Your task to perform on an android device: turn off notifications in google photos Image 0: 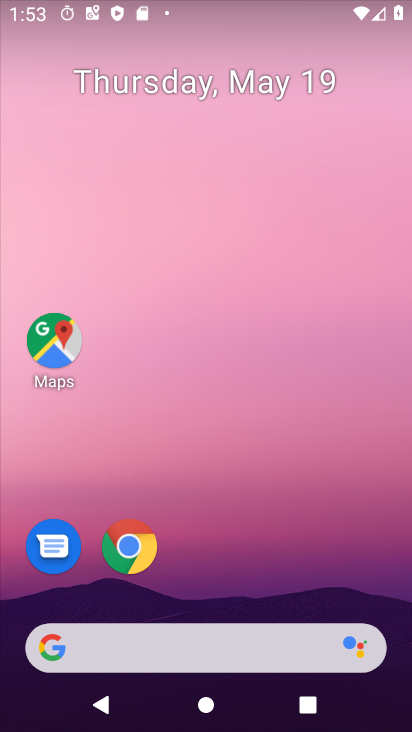
Step 0: drag from (178, 598) to (185, 78)
Your task to perform on an android device: turn off notifications in google photos Image 1: 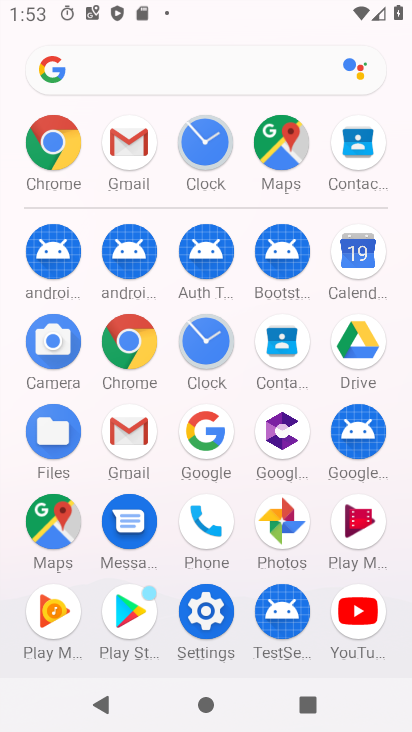
Step 1: click (278, 518)
Your task to perform on an android device: turn off notifications in google photos Image 2: 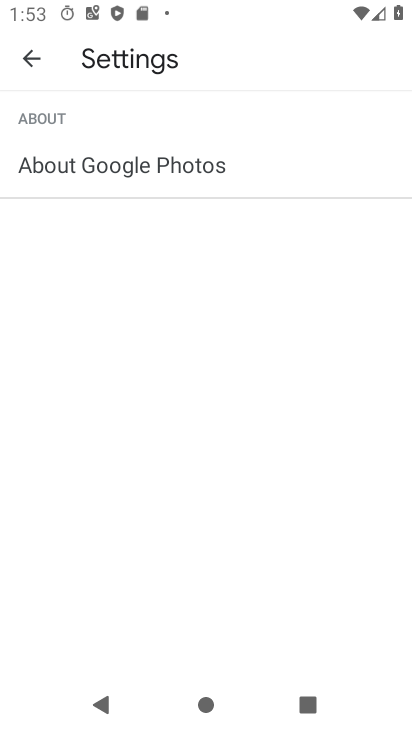
Step 2: click (49, 64)
Your task to perform on an android device: turn off notifications in google photos Image 3: 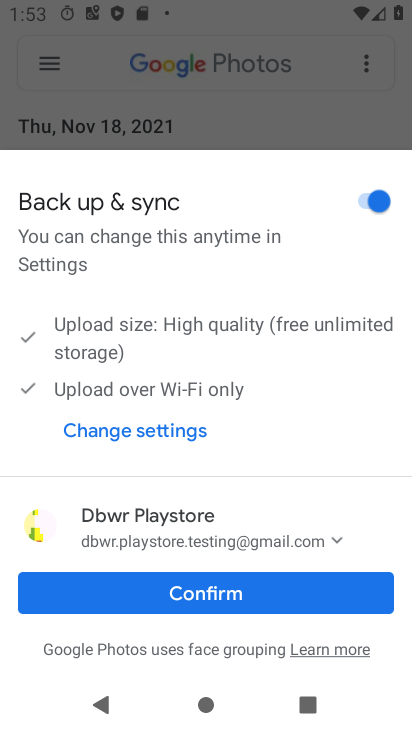
Step 3: click (129, 599)
Your task to perform on an android device: turn off notifications in google photos Image 4: 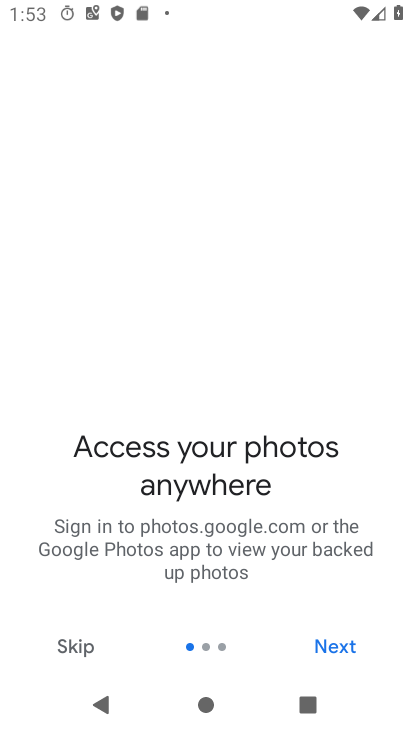
Step 4: click (329, 647)
Your task to perform on an android device: turn off notifications in google photos Image 5: 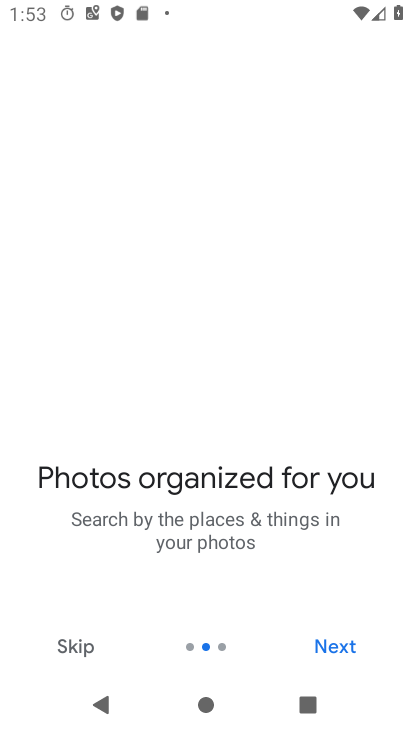
Step 5: click (329, 647)
Your task to perform on an android device: turn off notifications in google photos Image 6: 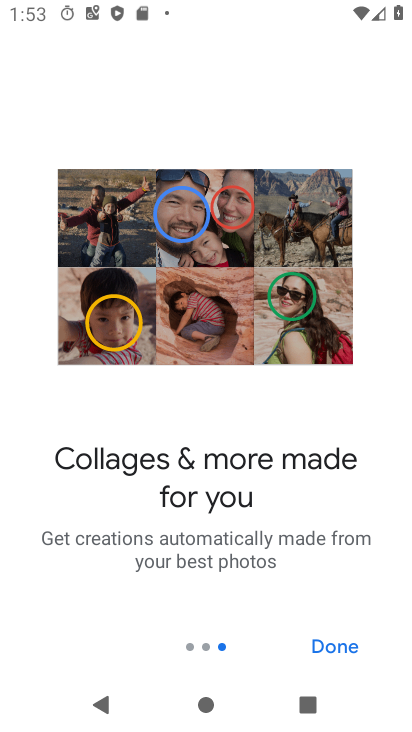
Step 6: click (329, 647)
Your task to perform on an android device: turn off notifications in google photos Image 7: 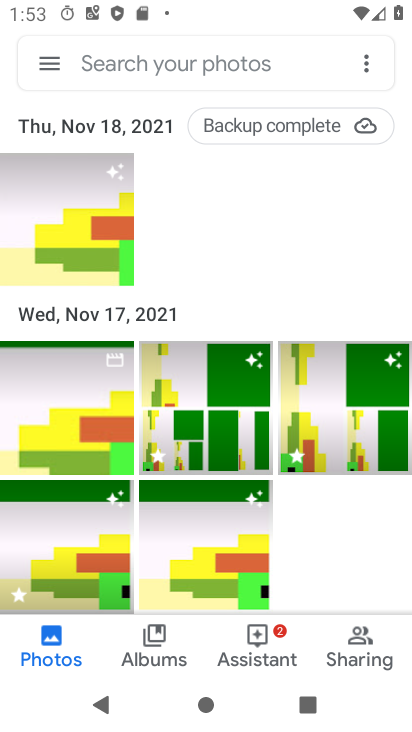
Step 7: click (45, 61)
Your task to perform on an android device: turn off notifications in google photos Image 8: 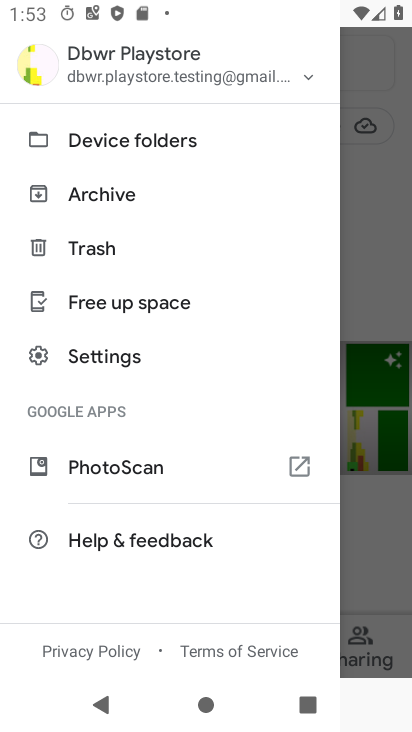
Step 8: click (104, 367)
Your task to perform on an android device: turn off notifications in google photos Image 9: 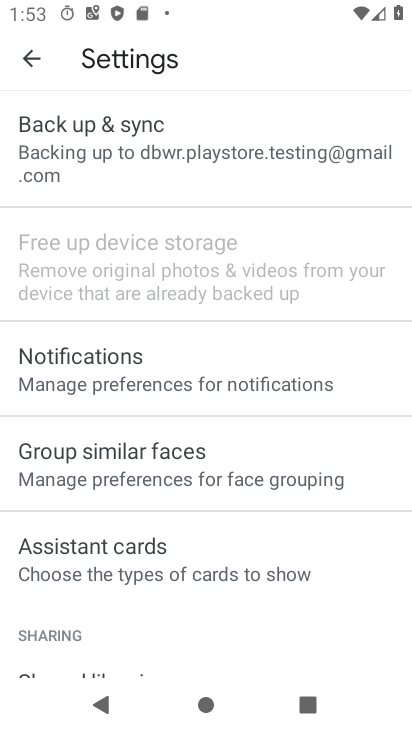
Step 9: click (160, 399)
Your task to perform on an android device: turn off notifications in google photos Image 10: 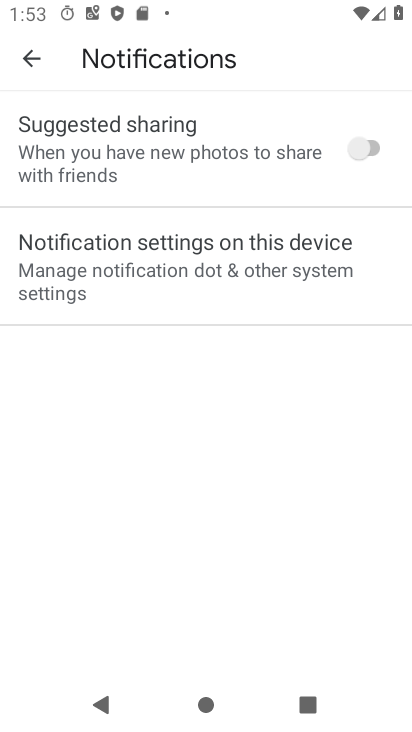
Step 10: click (220, 284)
Your task to perform on an android device: turn off notifications in google photos Image 11: 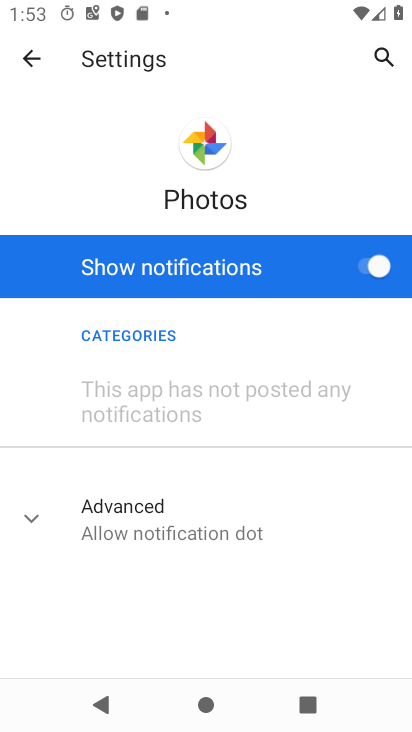
Step 11: click (385, 275)
Your task to perform on an android device: turn off notifications in google photos Image 12: 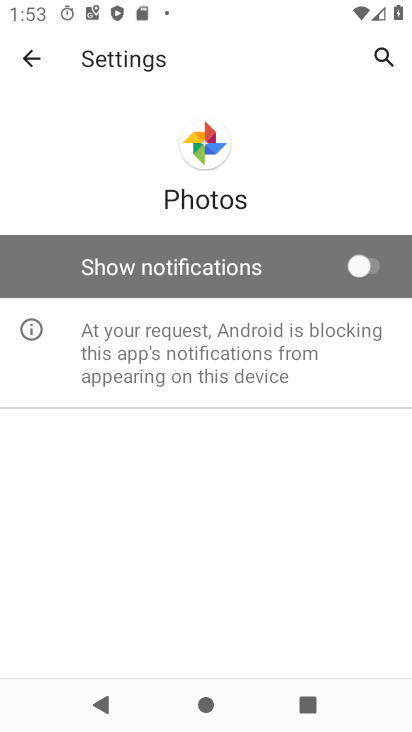
Step 12: task complete